Your task to perform on an android device: check battery use Image 0: 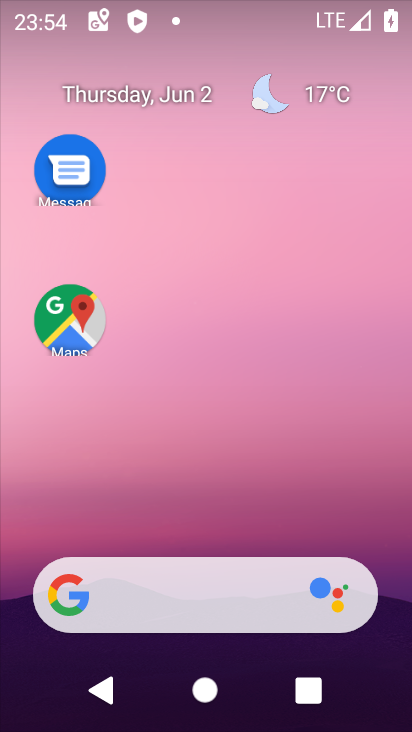
Step 0: press home button
Your task to perform on an android device: check battery use Image 1: 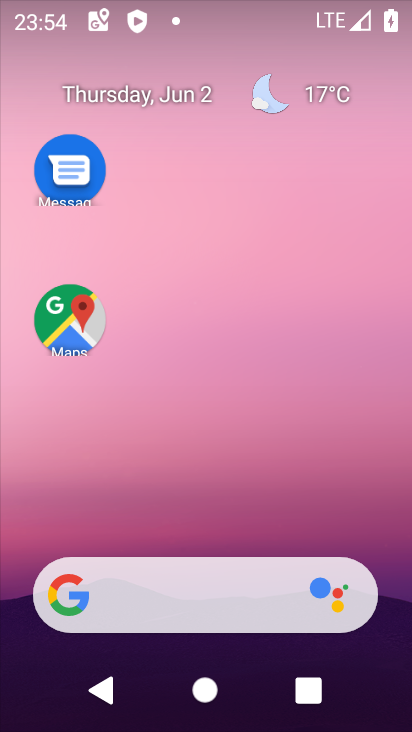
Step 1: drag from (392, 494) to (240, 113)
Your task to perform on an android device: check battery use Image 2: 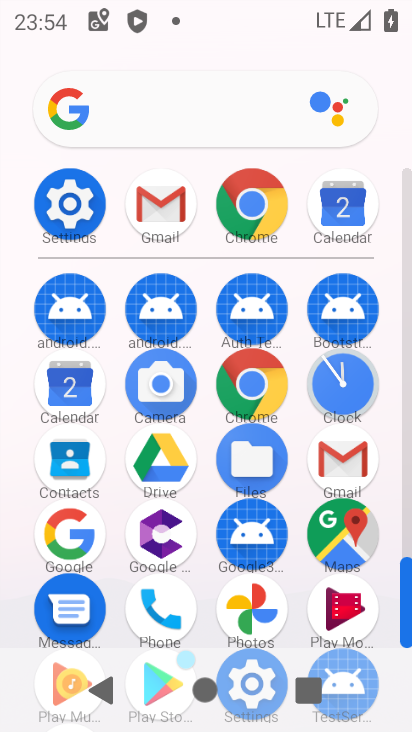
Step 2: click (71, 206)
Your task to perform on an android device: check battery use Image 3: 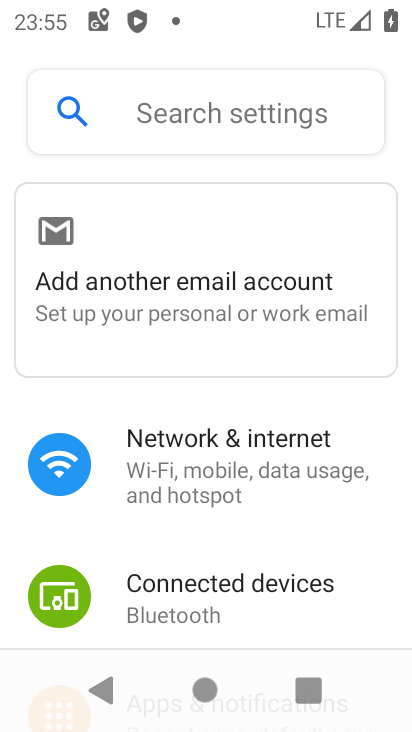
Step 3: drag from (255, 537) to (218, 10)
Your task to perform on an android device: check battery use Image 4: 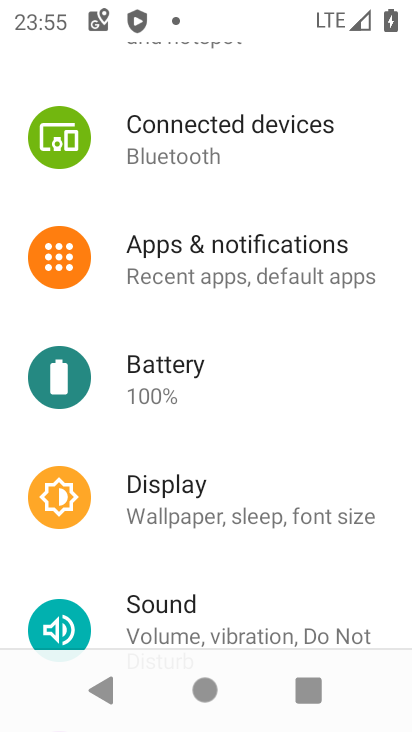
Step 4: drag from (186, 525) to (206, 129)
Your task to perform on an android device: check battery use Image 5: 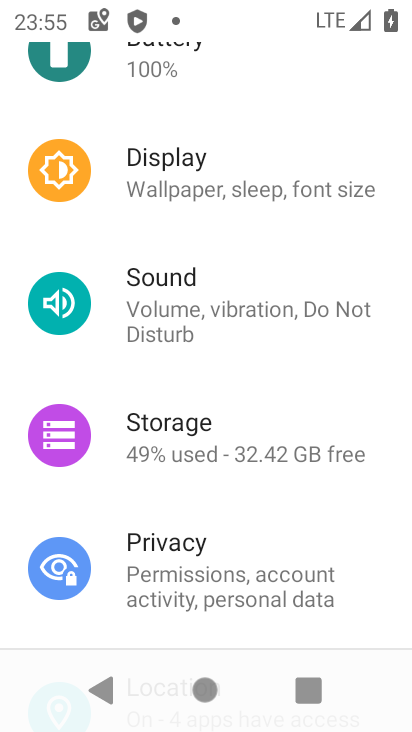
Step 5: drag from (204, 538) to (204, 182)
Your task to perform on an android device: check battery use Image 6: 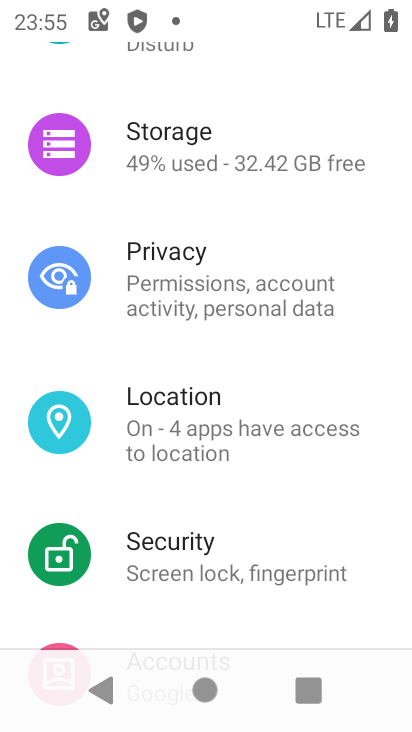
Step 6: drag from (207, 454) to (217, 244)
Your task to perform on an android device: check battery use Image 7: 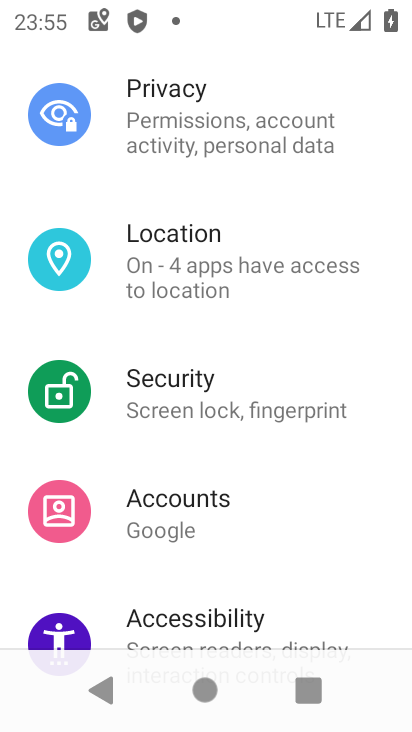
Step 7: drag from (158, 567) to (213, 149)
Your task to perform on an android device: check battery use Image 8: 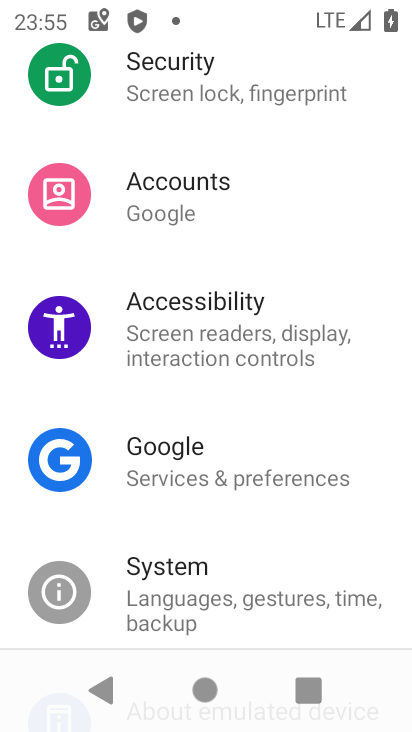
Step 8: drag from (217, 561) to (209, 260)
Your task to perform on an android device: check battery use Image 9: 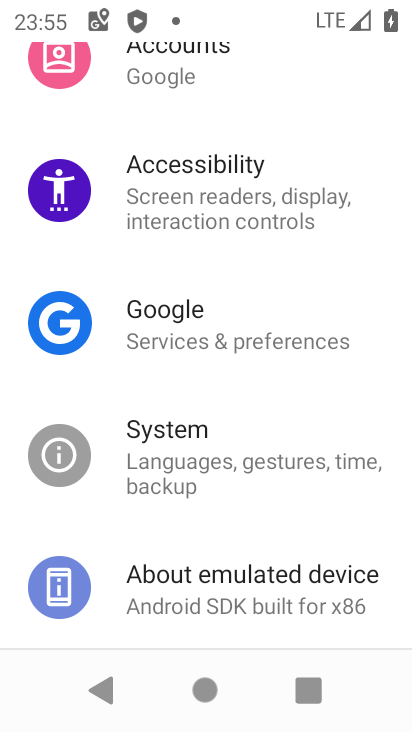
Step 9: click (305, 711)
Your task to perform on an android device: check battery use Image 10: 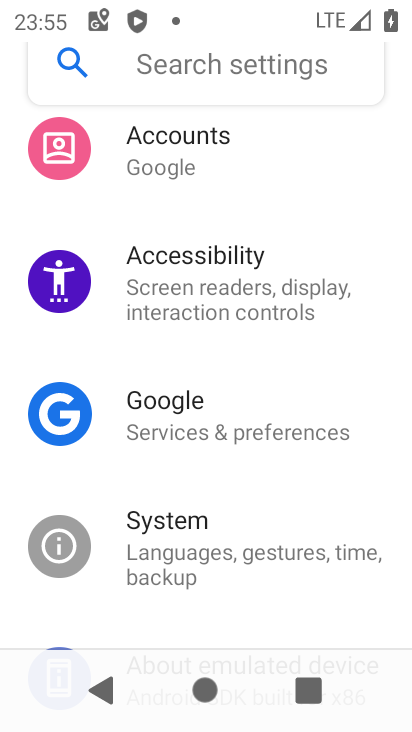
Step 10: drag from (250, 167) to (344, 731)
Your task to perform on an android device: check battery use Image 11: 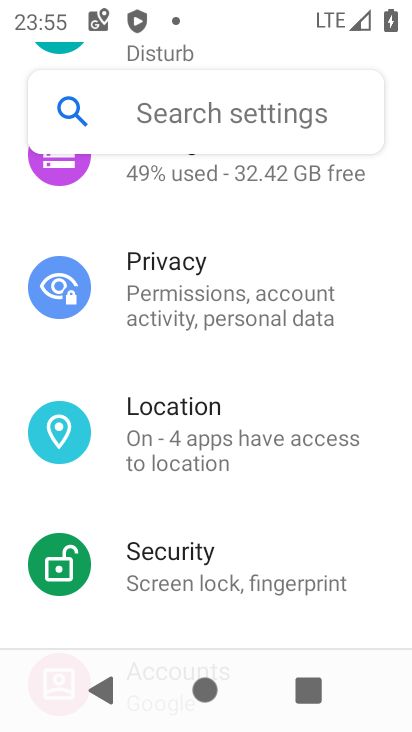
Step 11: drag from (186, 210) to (173, 720)
Your task to perform on an android device: check battery use Image 12: 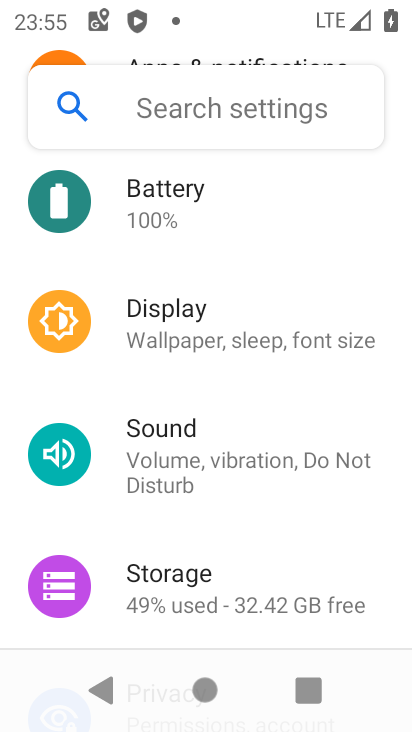
Step 12: click (165, 231)
Your task to perform on an android device: check battery use Image 13: 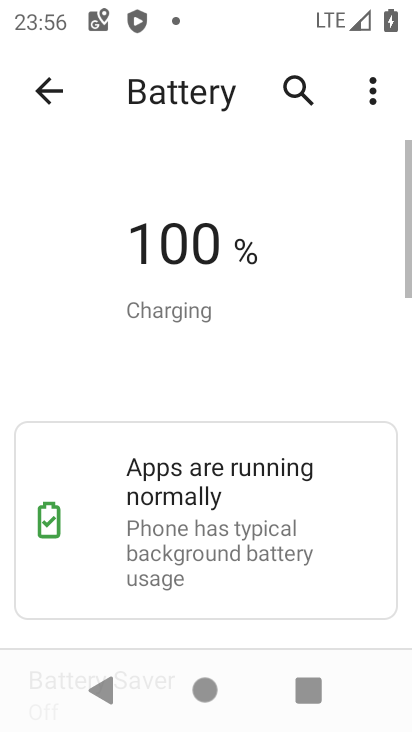
Step 13: task complete